Your task to perform on an android device: make emails show in primary in the gmail app Image 0: 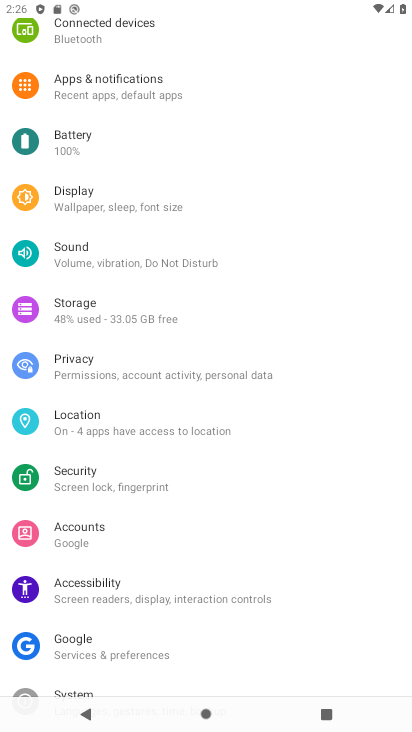
Step 0: press home button
Your task to perform on an android device: make emails show in primary in the gmail app Image 1: 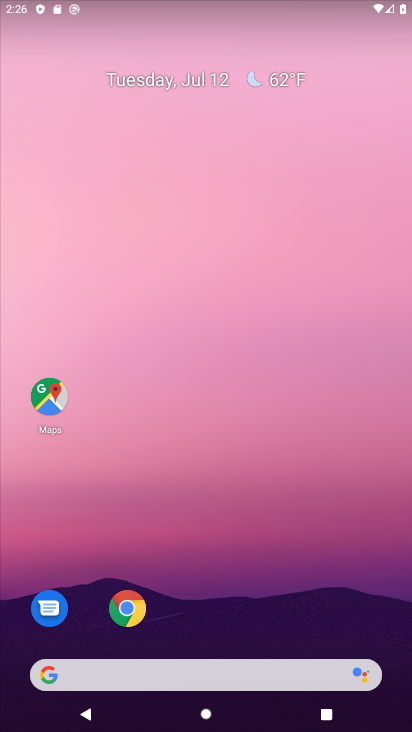
Step 1: drag from (180, 671) to (290, 173)
Your task to perform on an android device: make emails show in primary in the gmail app Image 2: 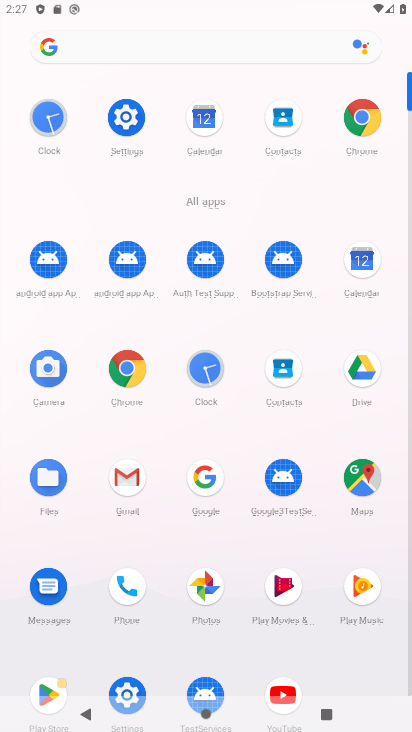
Step 2: click (134, 475)
Your task to perform on an android device: make emails show in primary in the gmail app Image 3: 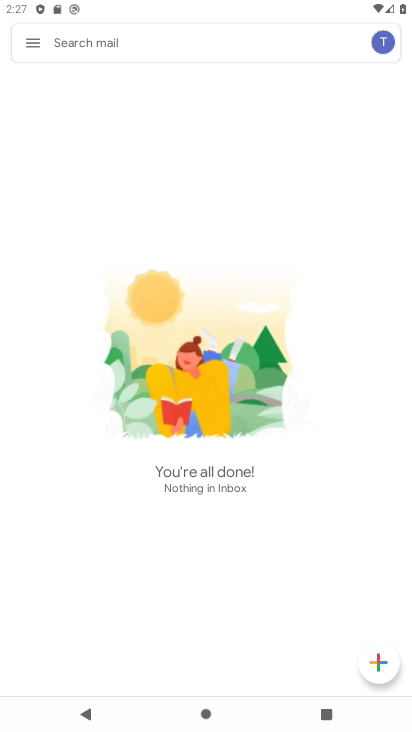
Step 3: click (36, 38)
Your task to perform on an android device: make emails show in primary in the gmail app Image 4: 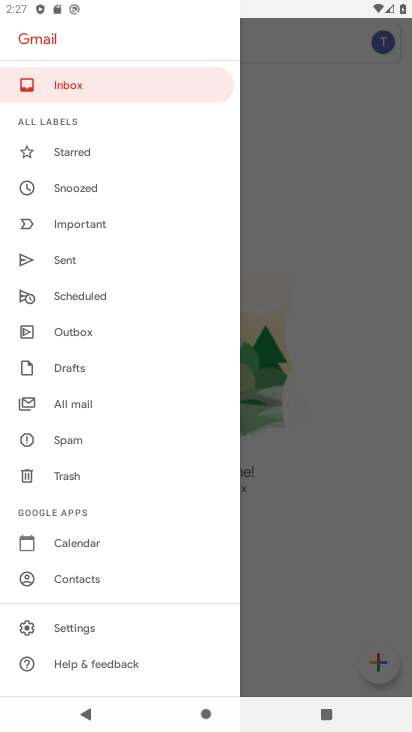
Step 4: click (82, 630)
Your task to perform on an android device: make emails show in primary in the gmail app Image 5: 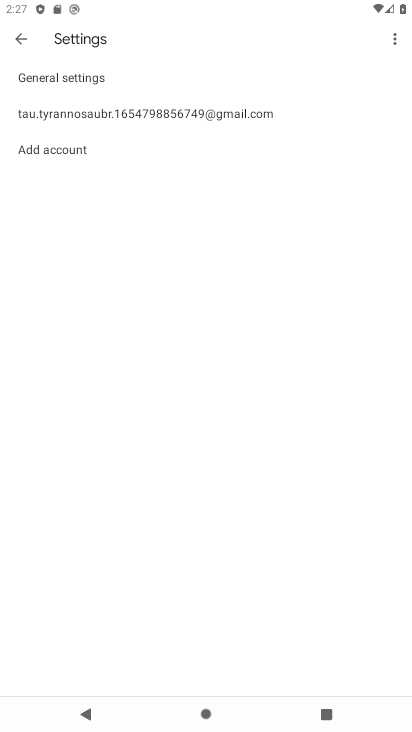
Step 5: click (223, 107)
Your task to perform on an android device: make emails show in primary in the gmail app Image 6: 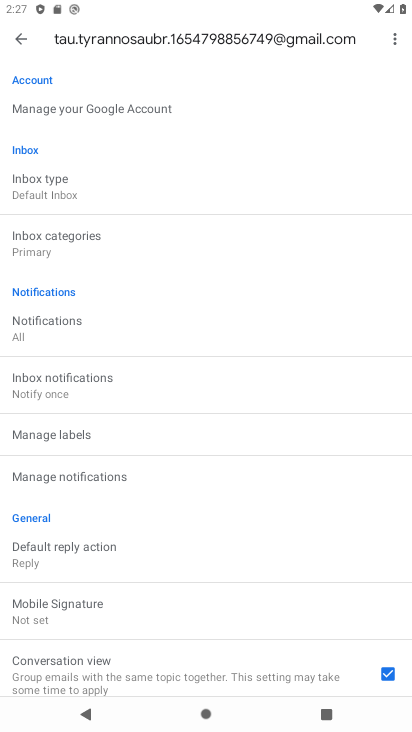
Step 6: click (59, 256)
Your task to perform on an android device: make emails show in primary in the gmail app Image 7: 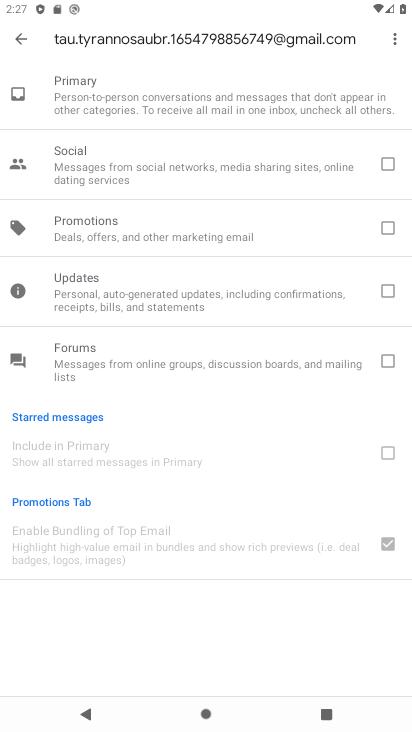
Step 7: click (23, 37)
Your task to perform on an android device: make emails show in primary in the gmail app Image 8: 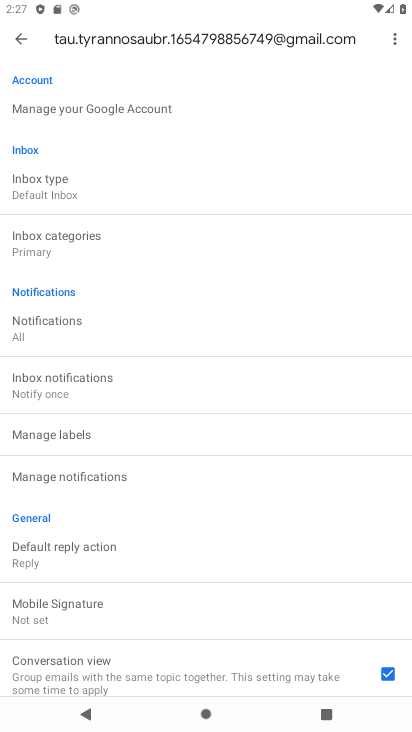
Step 8: task complete